Your task to perform on an android device: Do I have any events today? Image 0: 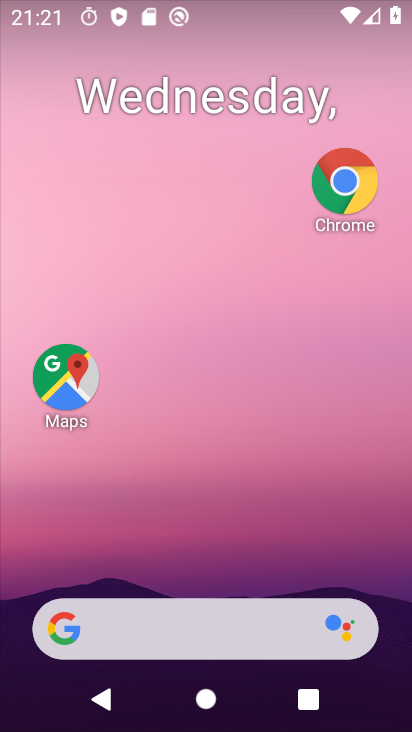
Step 0: drag from (243, 646) to (298, 221)
Your task to perform on an android device: Do I have any events today? Image 1: 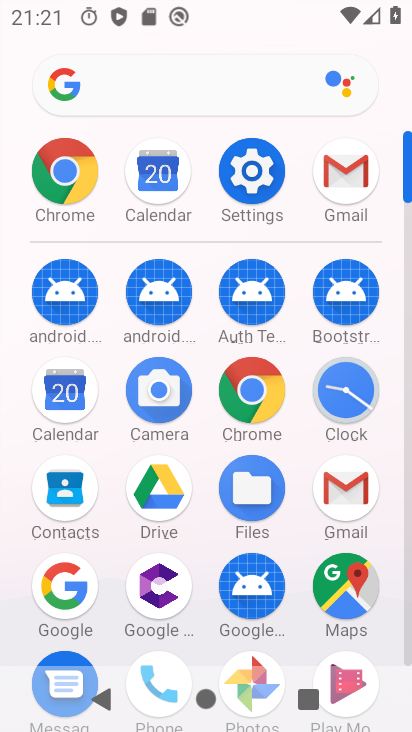
Step 1: click (74, 397)
Your task to perform on an android device: Do I have any events today? Image 2: 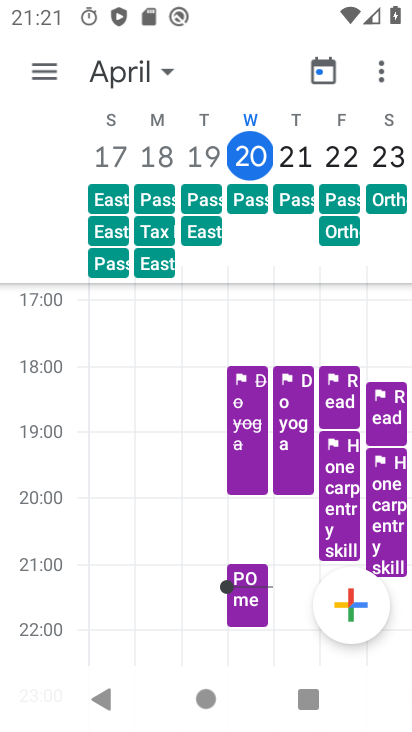
Step 2: click (47, 68)
Your task to perform on an android device: Do I have any events today? Image 3: 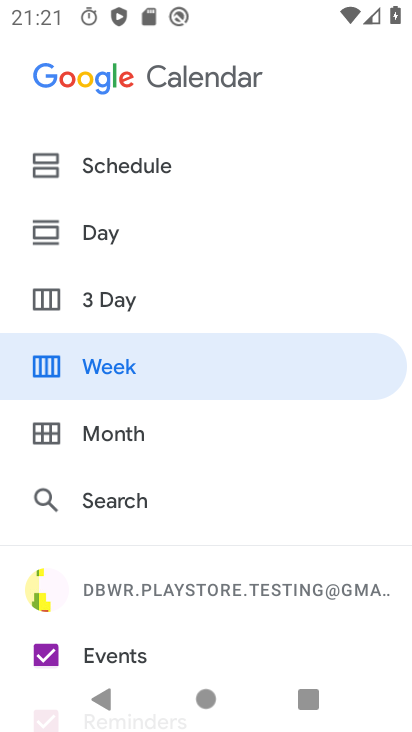
Step 3: click (100, 220)
Your task to perform on an android device: Do I have any events today? Image 4: 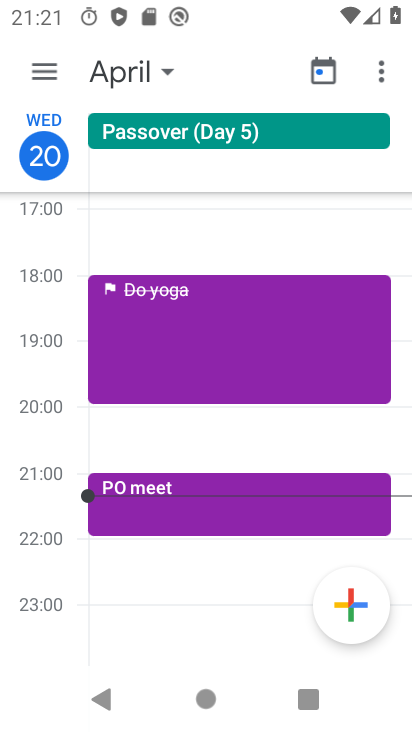
Step 4: task complete